Your task to perform on an android device: When is my next appointment? Image 0: 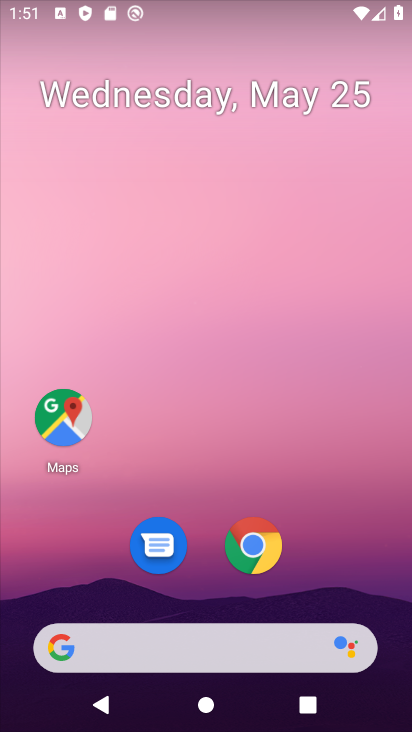
Step 0: drag from (377, 572) to (324, 118)
Your task to perform on an android device: When is my next appointment? Image 1: 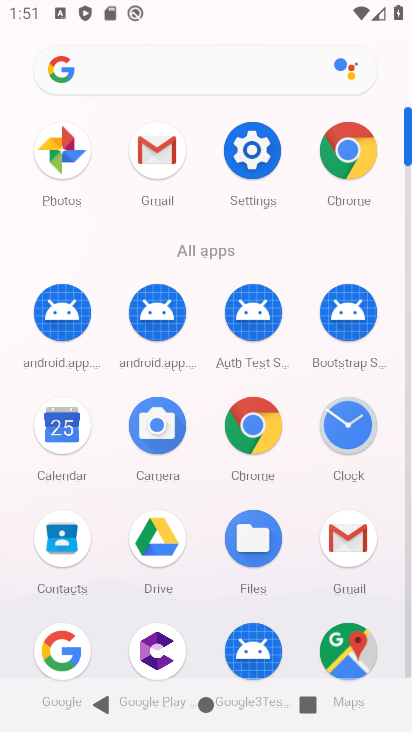
Step 1: click (75, 434)
Your task to perform on an android device: When is my next appointment? Image 2: 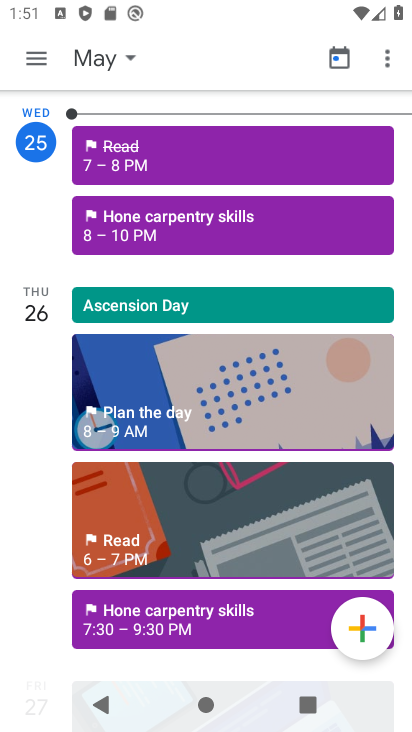
Step 2: task complete